Your task to perform on an android device: Go to Android settings Image 0: 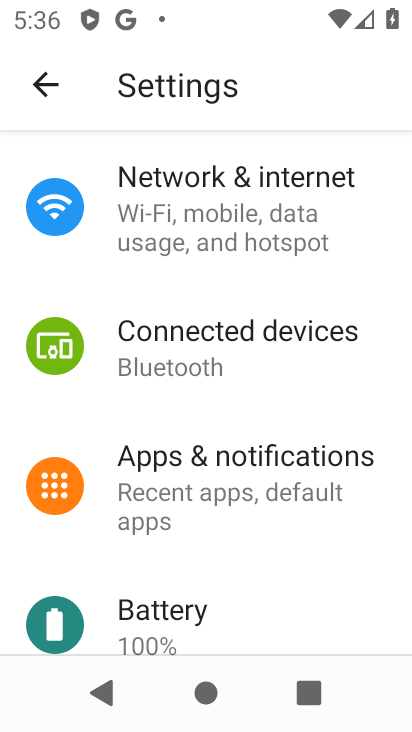
Step 0: press home button
Your task to perform on an android device: Go to Android settings Image 1: 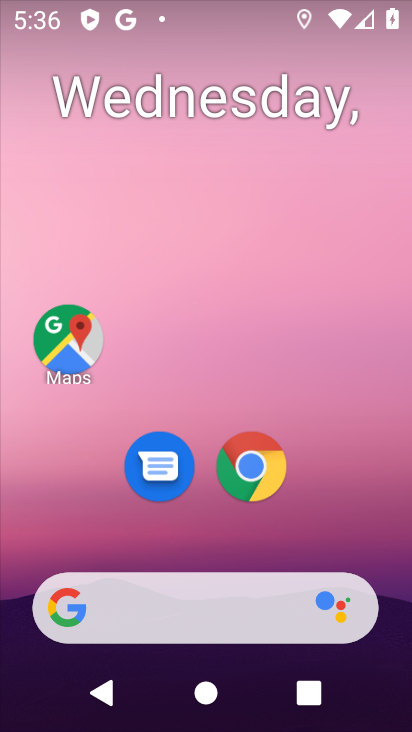
Step 1: drag from (280, 541) to (305, 102)
Your task to perform on an android device: Go to Android settings Image 2: 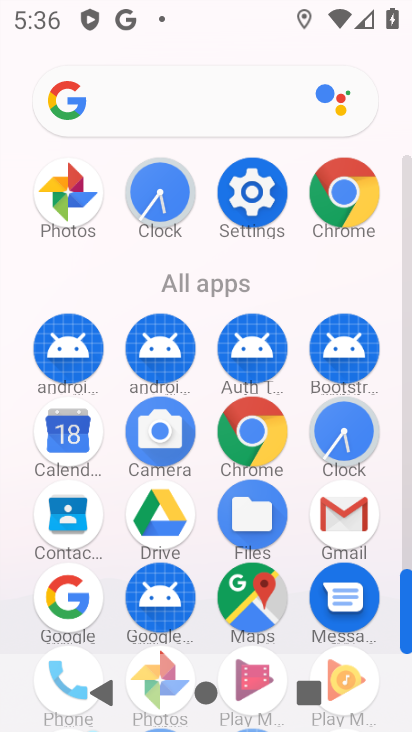
Step 2: click (257, 198)
Your task to perform on an android device: Go to Android settings Image 3: 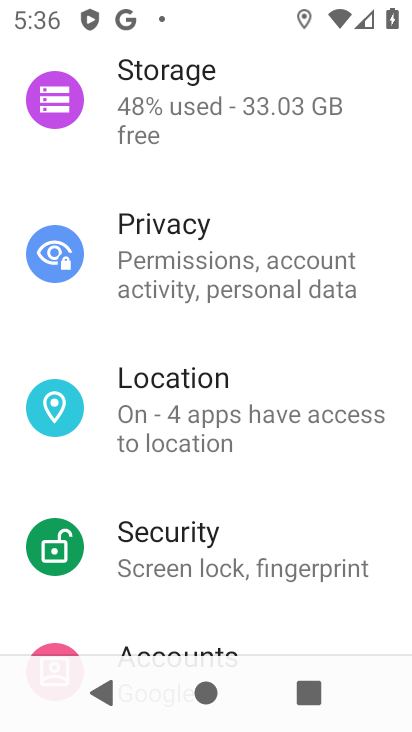
Step 3: drag from (323, 505) to (329, 141)
Your task to perform on an android device: Go to Android settings Image 4: 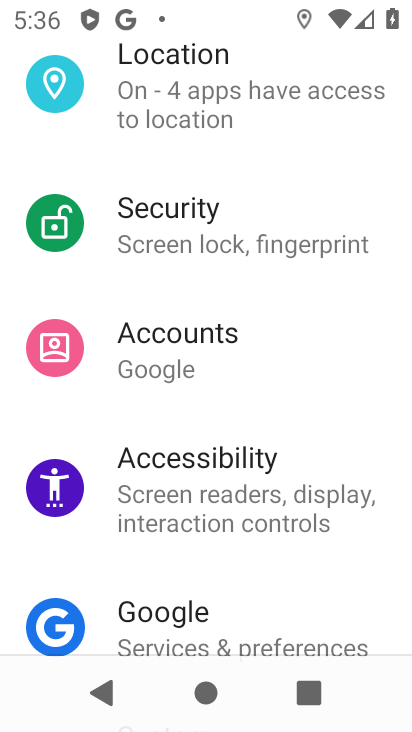
Step 4: drag from (314, 581) to (337, 88)
Your task to perform on an android device: Go to Android settings Image 5: 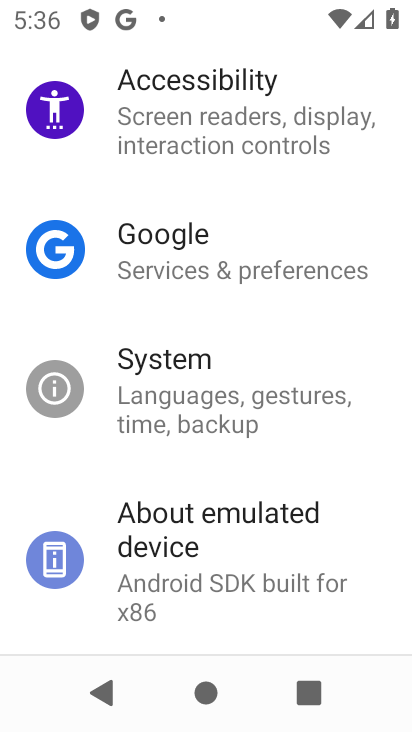
Step 5: click (185, 551)
Your task to perform on an android device: Go to Android settings Image 6: 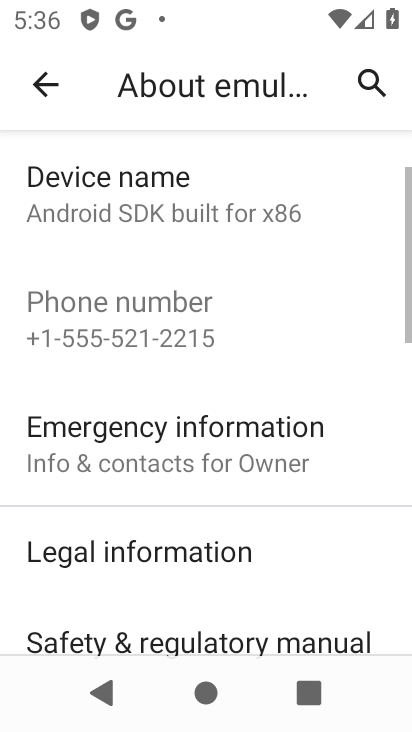
Step 6: drag from (254, 583) to (298, 174)
Your task to perform on an android device: Go to Android settings Image 7: 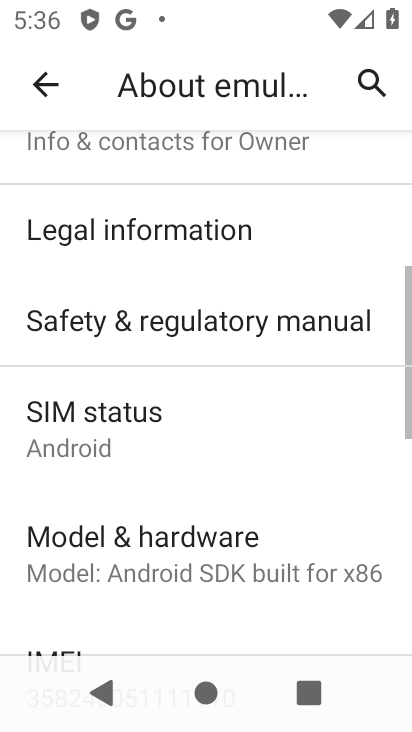
Step 7: drag from (289, 623) to (341, 177)
Your task to perform on an android device: Go to Android settings Image 8: 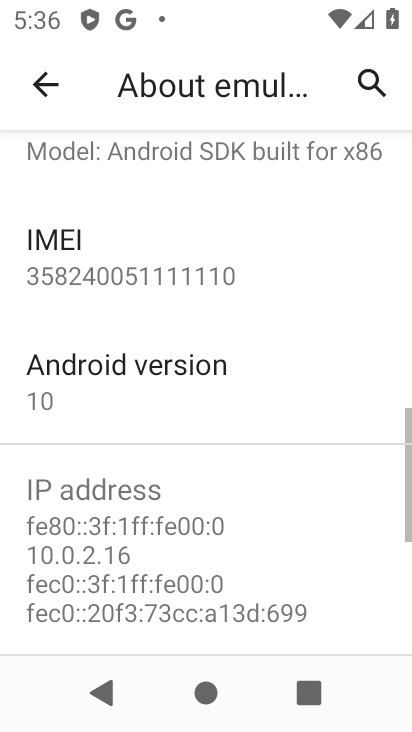
Step 8: click (103, 366)
Your task to perform on an android device: Go to Android settings Image 9: 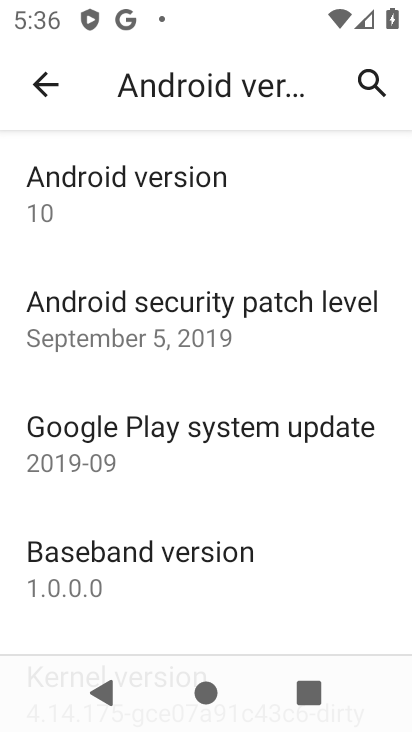
Step 9: task complete